Your task to perform on an android device: read, delete, or share a saved page in the chrome app Image 0: 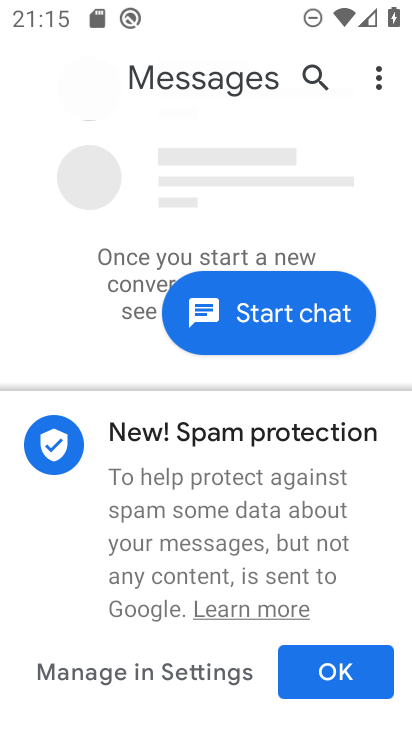
Step 0: press home button
Your task to perform on an android device: read, delete, or share a saved page in the chrome app Image 1: 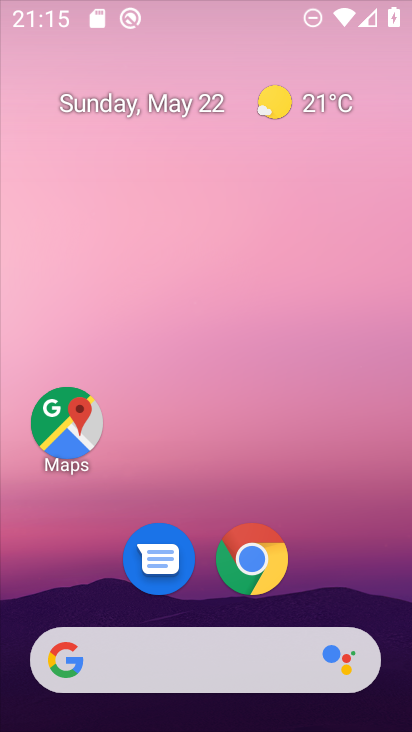
Step 1: drag from (231, 687) to (212, 439)
Your task to perform on an android device: read, delete, or share a saved page in the chrome app Image 2: 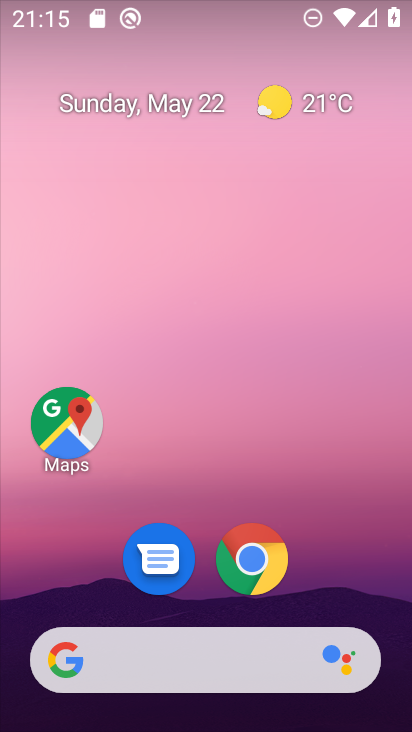
Step 2: drag from (233, 654) to (164, 324)
Your task to perform on an android device: read, delete, or share a saved page in the chrome app Image 3: 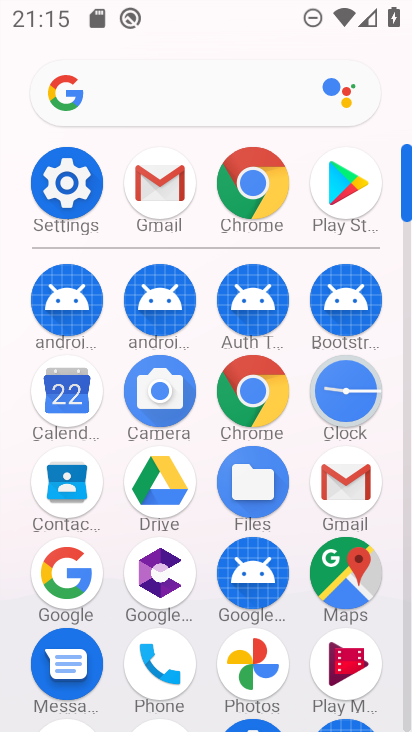
Step 3: click (248, 162)
Your task to perform on an android device: read, delete, or share a saved page in the chrome app Image 4: 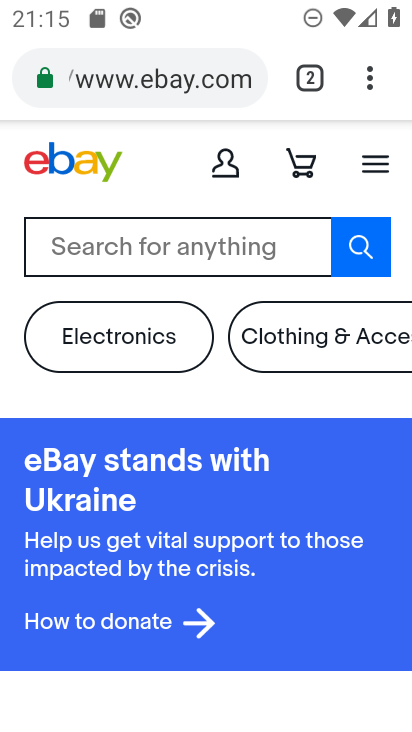
Step 4: click (361, 80)
Your task to perform on an android device: read, delete, or share a saved page in the chrome app Image 5: 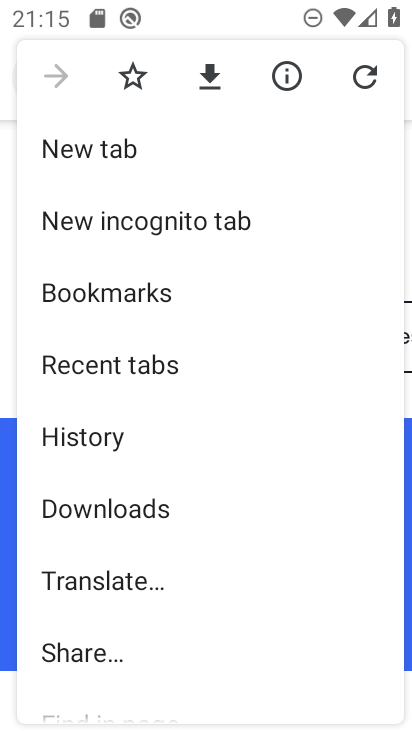
Step 5: click (78, 656)
Your task to perform on an android device: read, delete, or share a saved page in the chrome app Image 6: 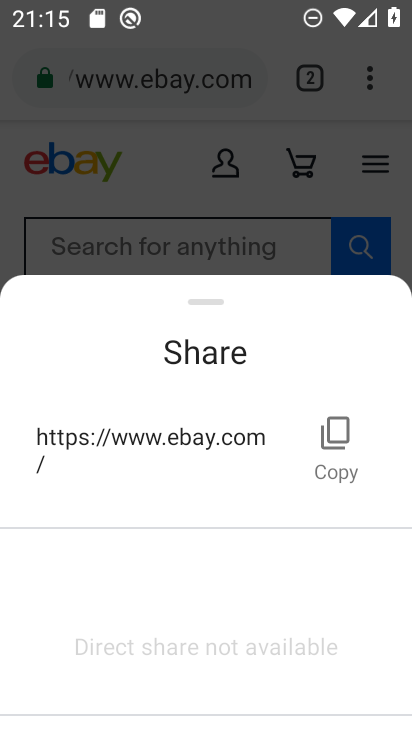
Step 6: task complete